Your task to perform on an android device: change text size in settings app Image 0: 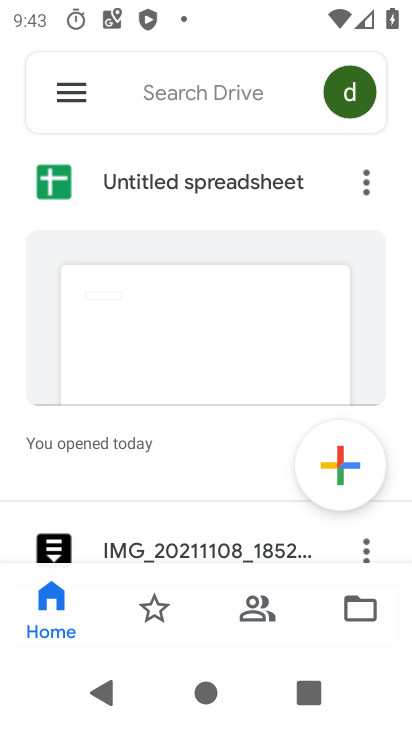
Step 0: press home button
Your task to perform on an android device: change text size in settings app Image 1: 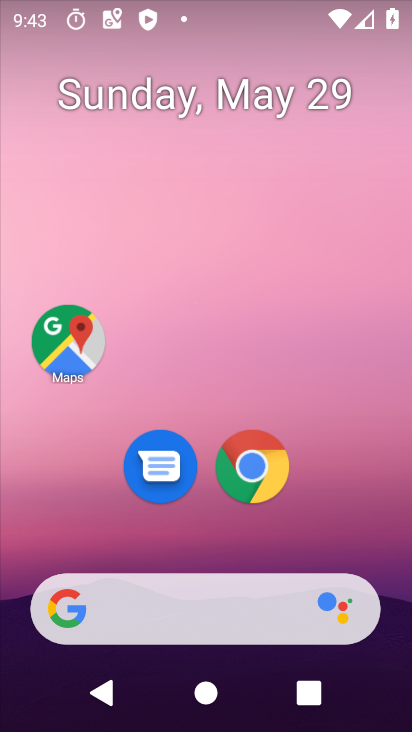
Step 1: drag from (235, 556) to (232, 215)
Your task to perform on an android device: change text size in settings app Image 2: 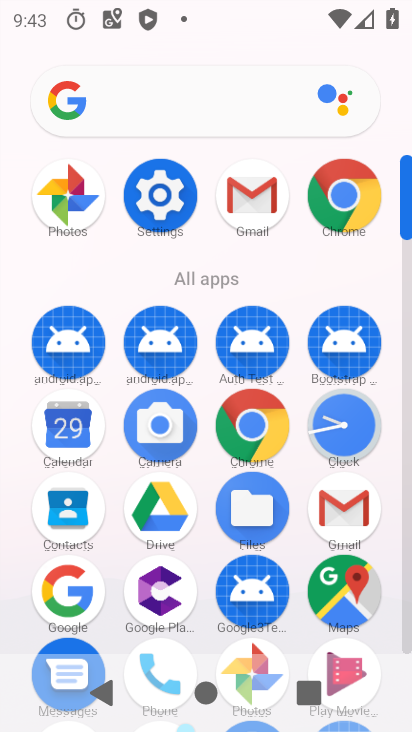
Step 2: click (175, 208)
Your task to perform on an android device: change text size in settings app Image 3: 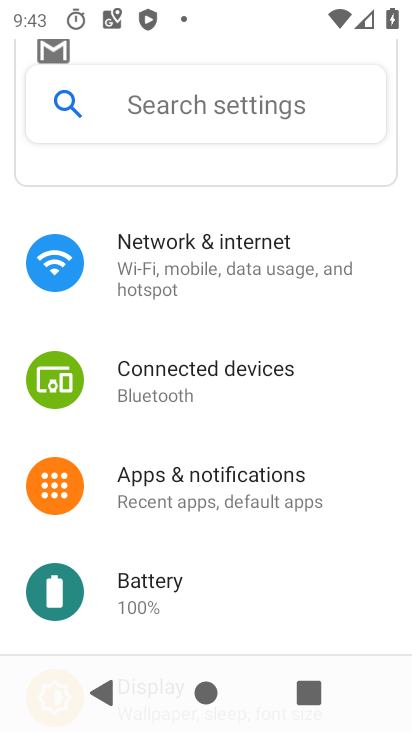
Step 3: drag from (200, 494) to (214, 277)
Your task to perform on an android device: change text size in settings app Image 4: 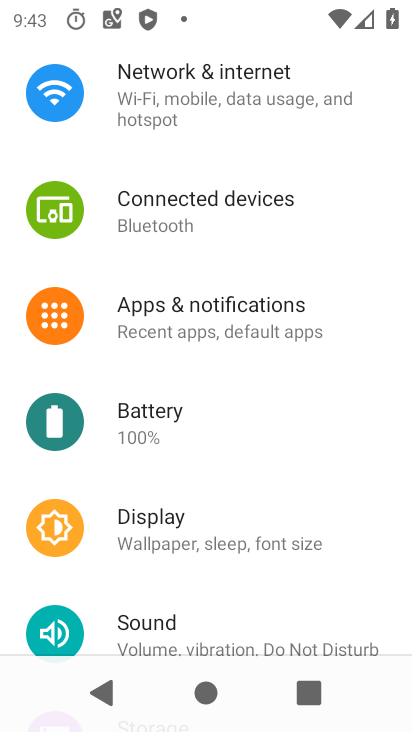
Step 4: click (178, 510)
Your task to perform on an android device: change text size in settings app Image 5: 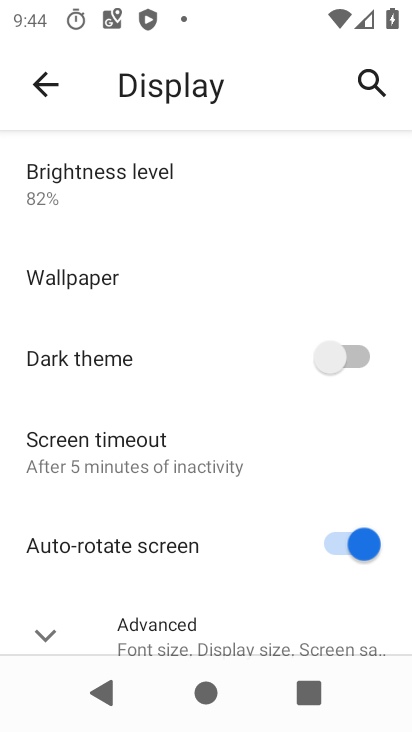
Step 5: drag from (136, 585) to (153, 349)
Your task to perform on an android device: change text size in settings app Image 6: 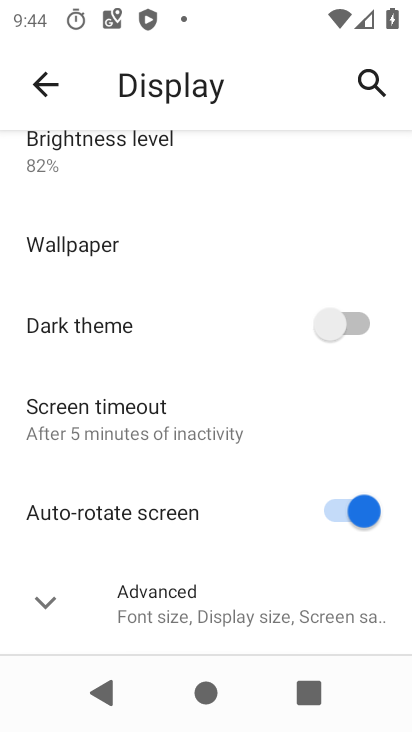
Step 6: click (141, 583)
Your task to perform on an android device: change text size in settings app Image 7: 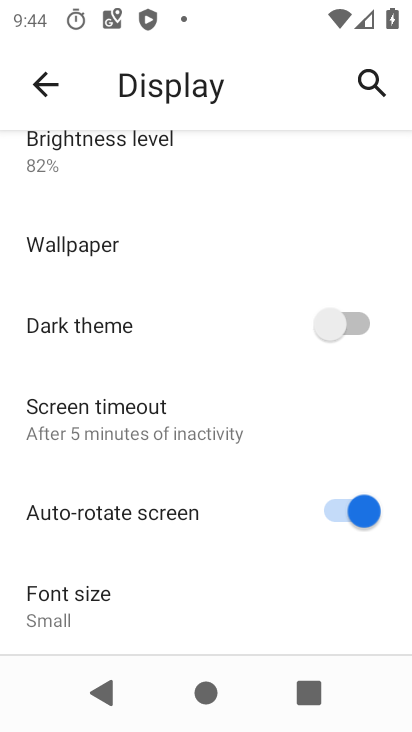
Step 7: drag from (132, 607) to (173, 409)
Your task to perform on an android device: change text size in settings app Image 8: 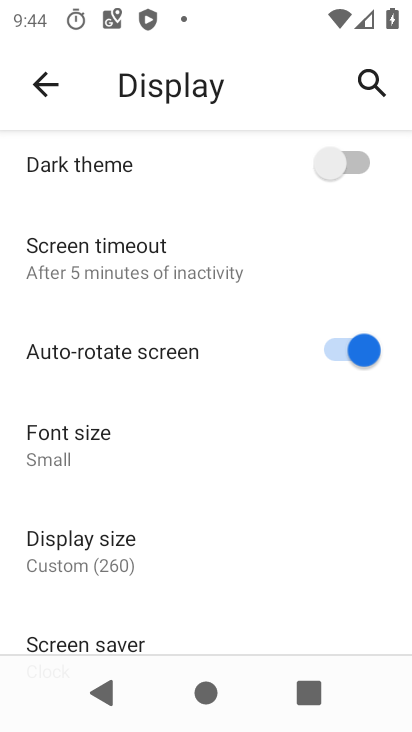
Step 8: click (140, 437)
Your task to perform on an android device: change text size in settings app Image 9: 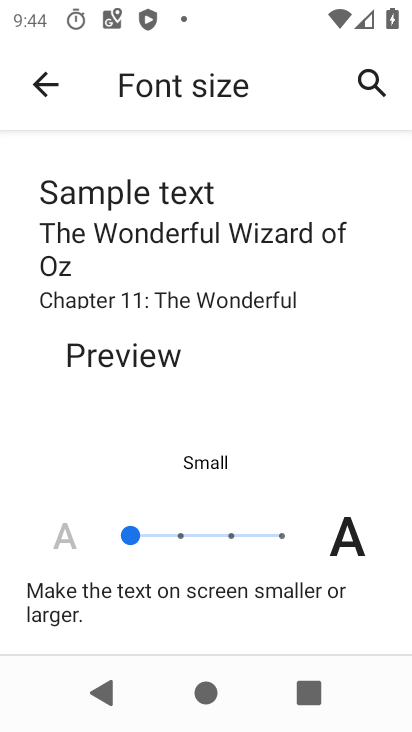
Step 9: click (171, 539)
Your task to perform on an android device: change text size in settings app Image 10: 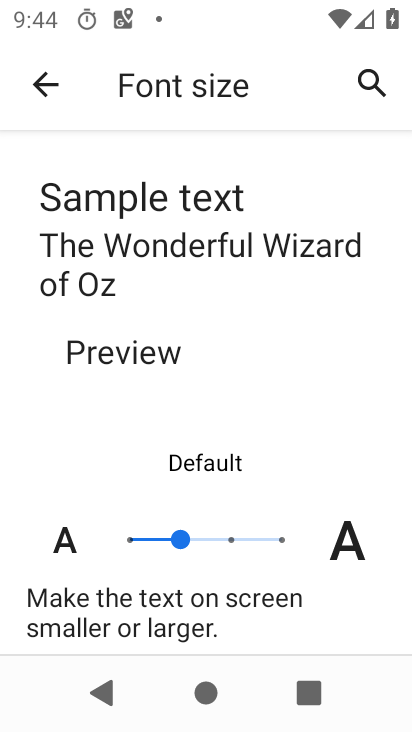
Step 10: task complete